Your task to perform on an android device: Add "bose quietcomfort 35" to the cart on walmart.com, then select checkout. Image 0: 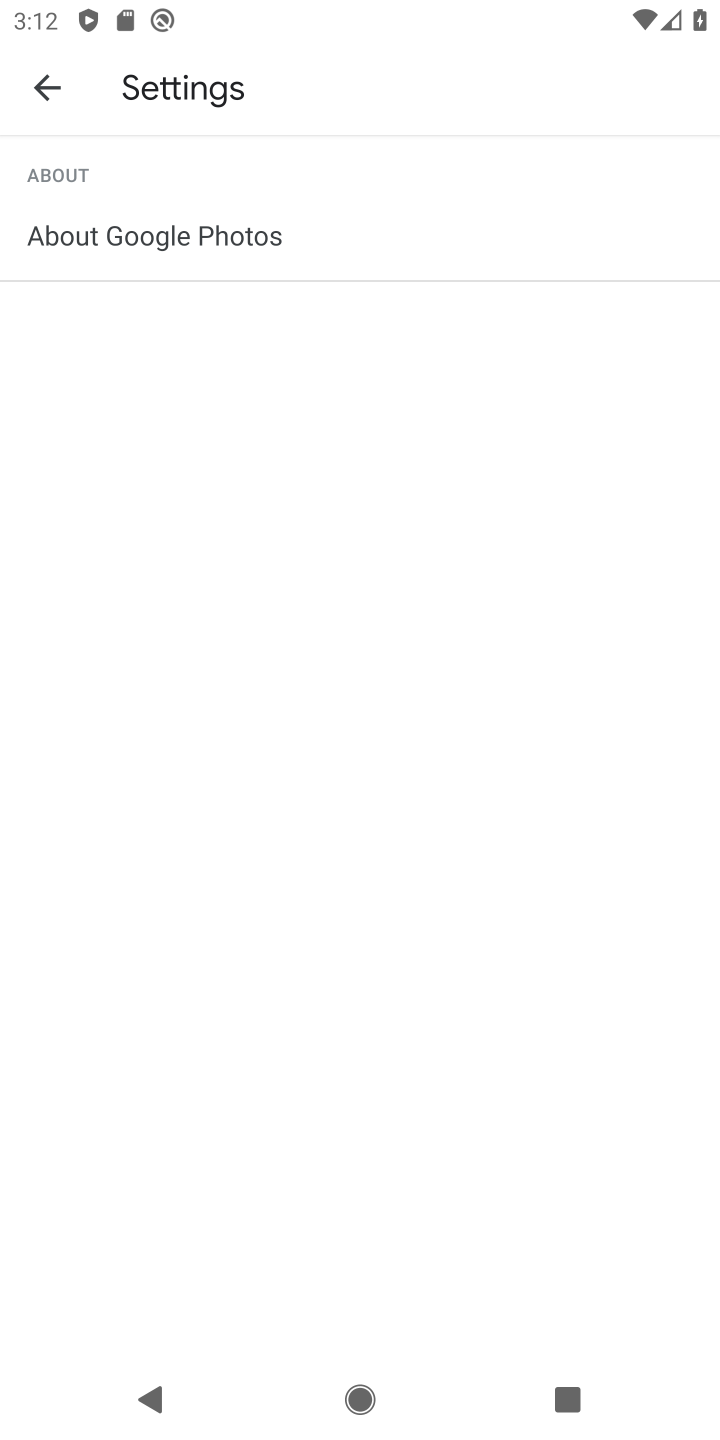
Step 0: press home button
Your task to perform on an android device: Add "bose quietcomfort 35" to the cart on walmart.com, then select checkout. Image 1: 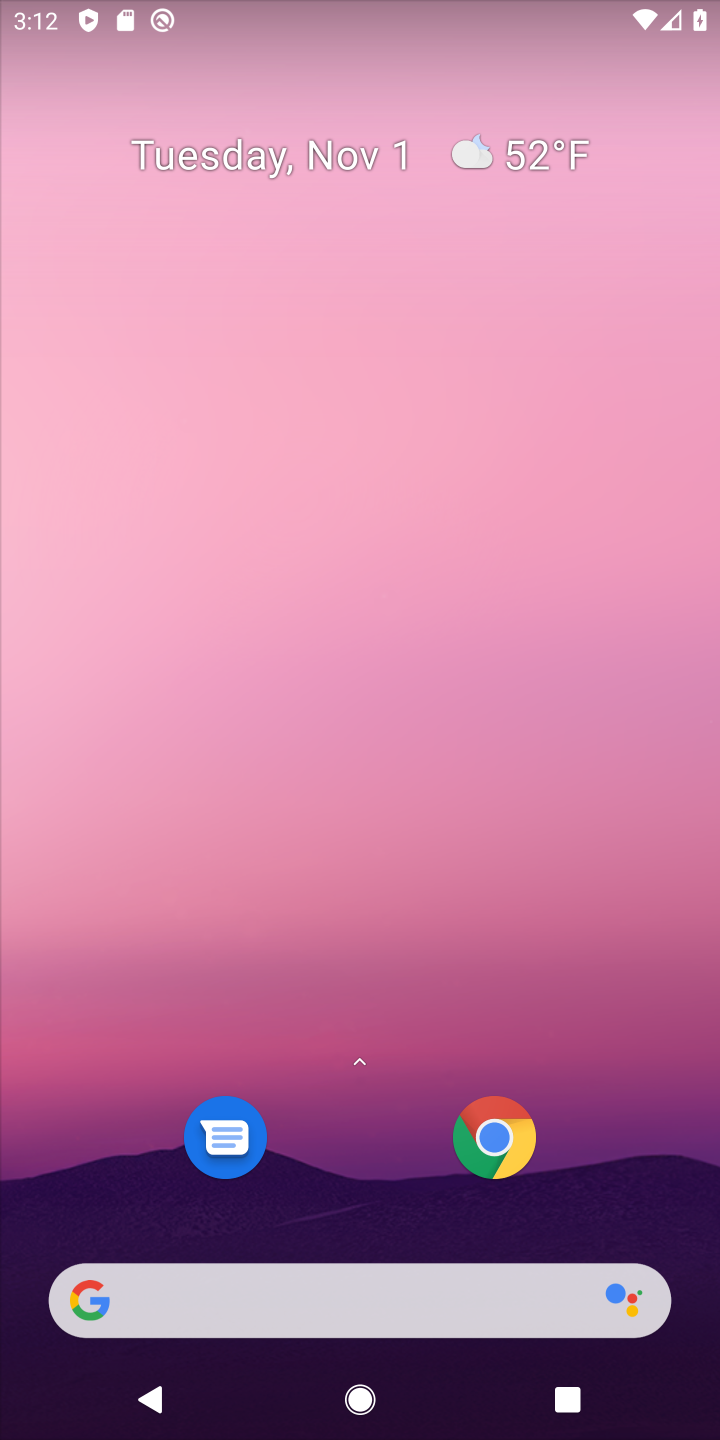
Step 1: click (420, 1296)
Your task to perform on an android device: Add "bose quietcomfort 35" to the cart on walmart.com, then select checkout. Image 2: 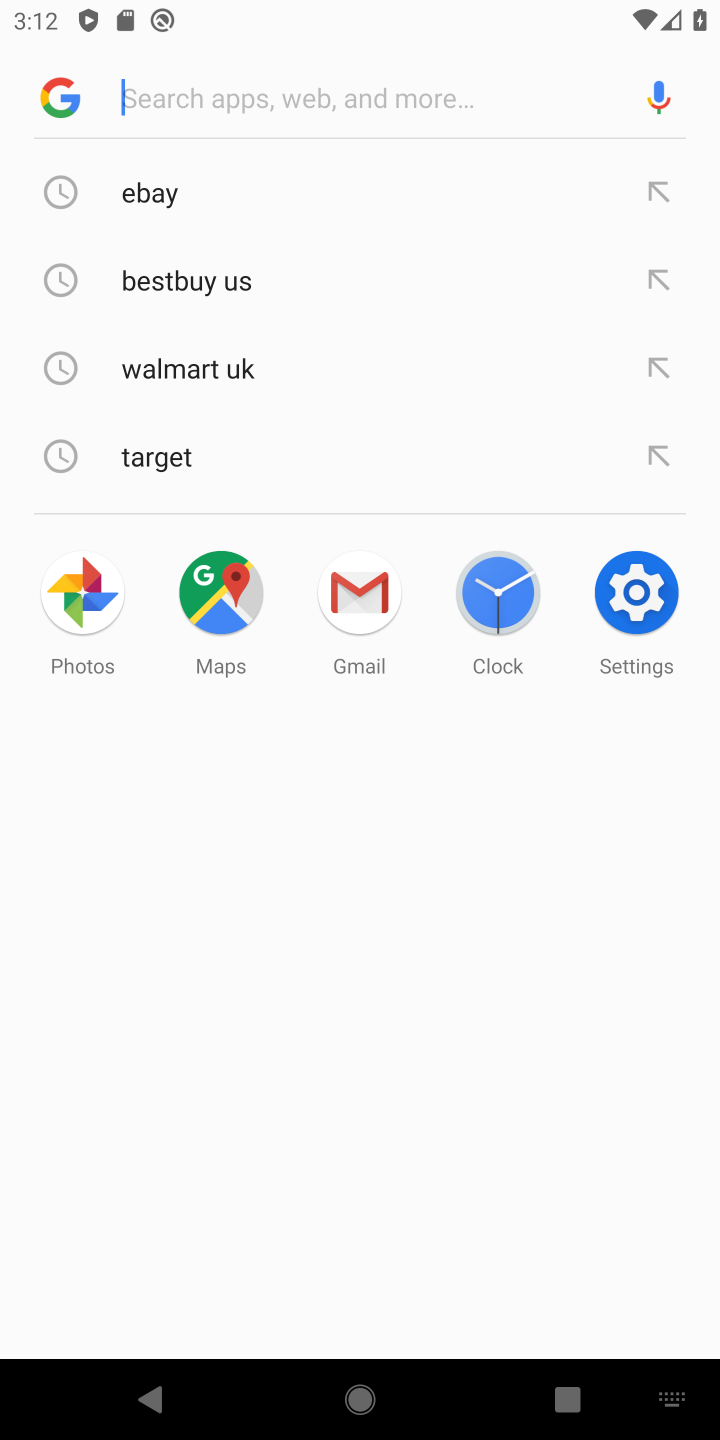
Step 2: type "walmart"
Your task to perform on an android device: Add "bose quietcomfort 35" to the cart on walmart.com, then select checkout. Image 3: 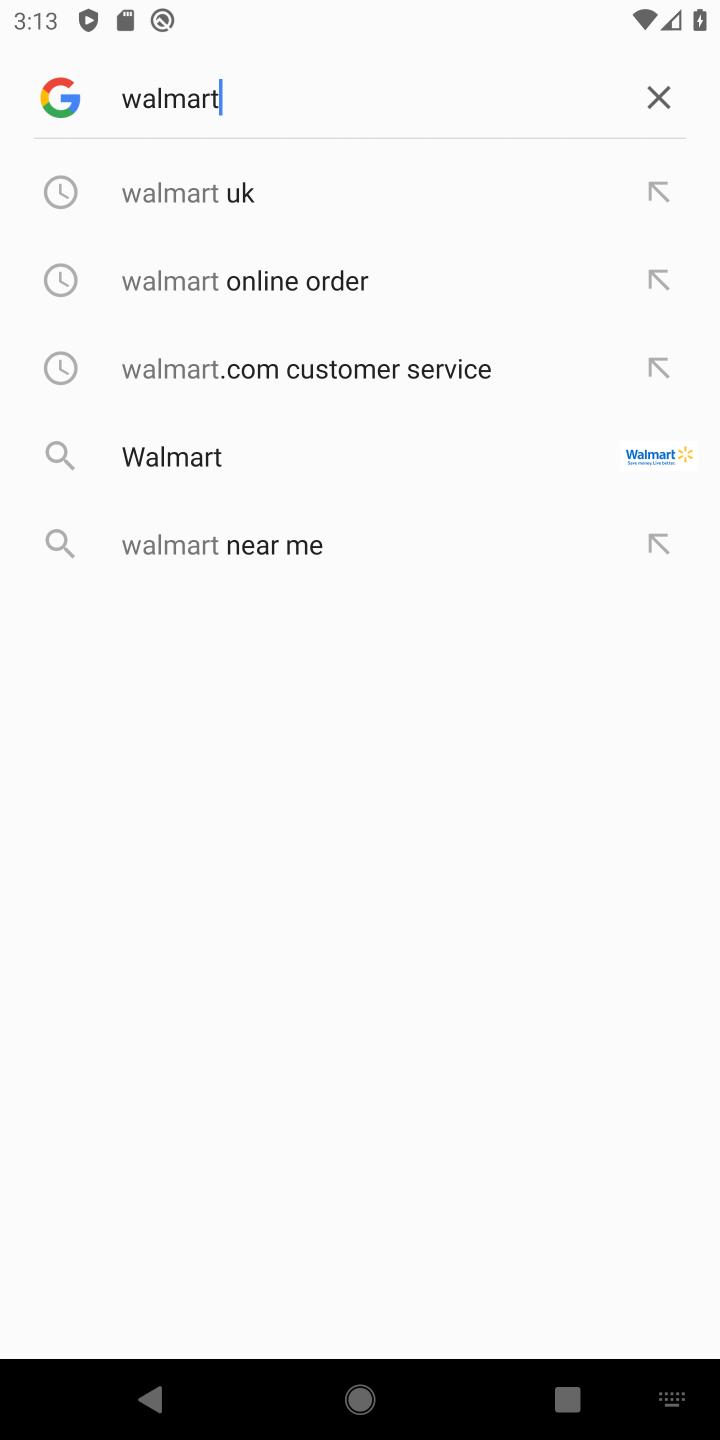
Step 3: click (512, 326)
Your task to perform on an android device: Add "bose quietcomfort 35" to the cart on walmart.com, then select checkout. Image 4: 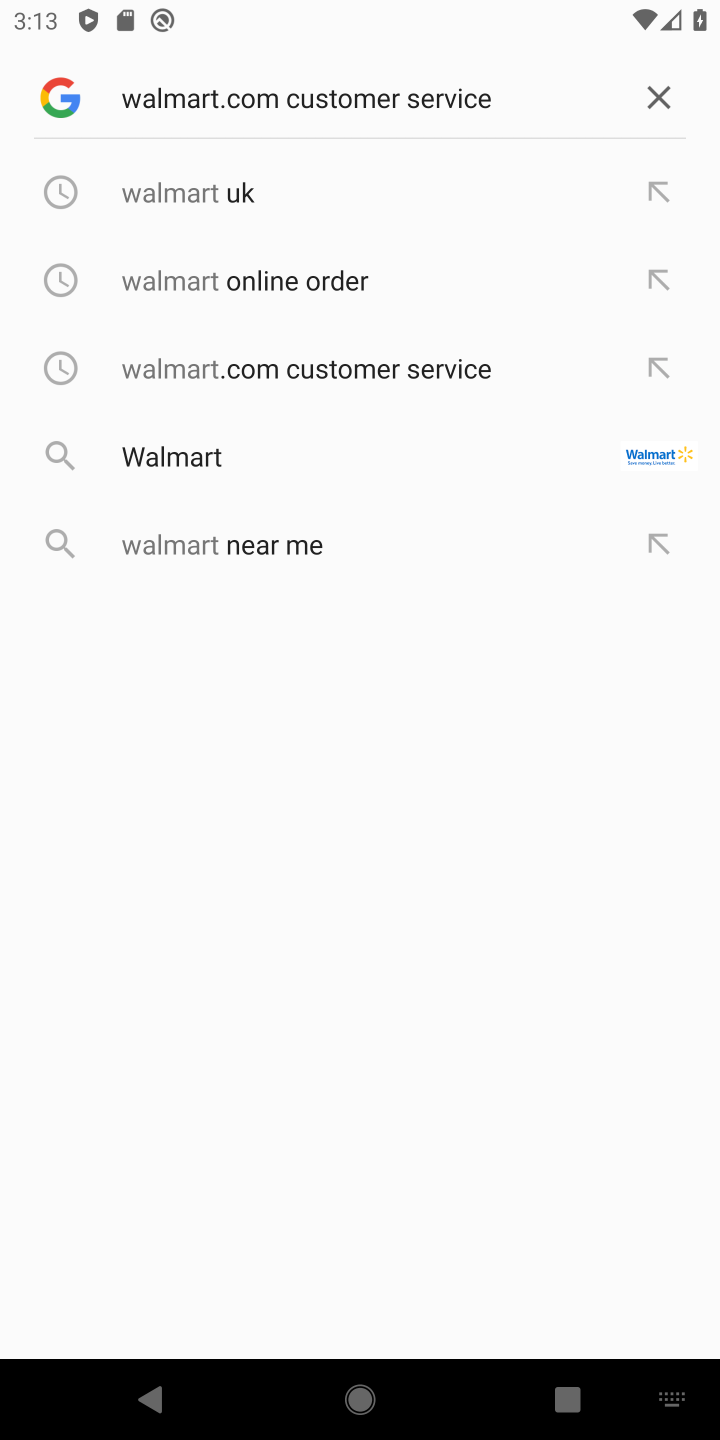
Step 4: click (184, 170)
Your task to perform on an android device: Add "bose quietcomfort 35" to the cart on walmart.com, then select checkout. Image 5: 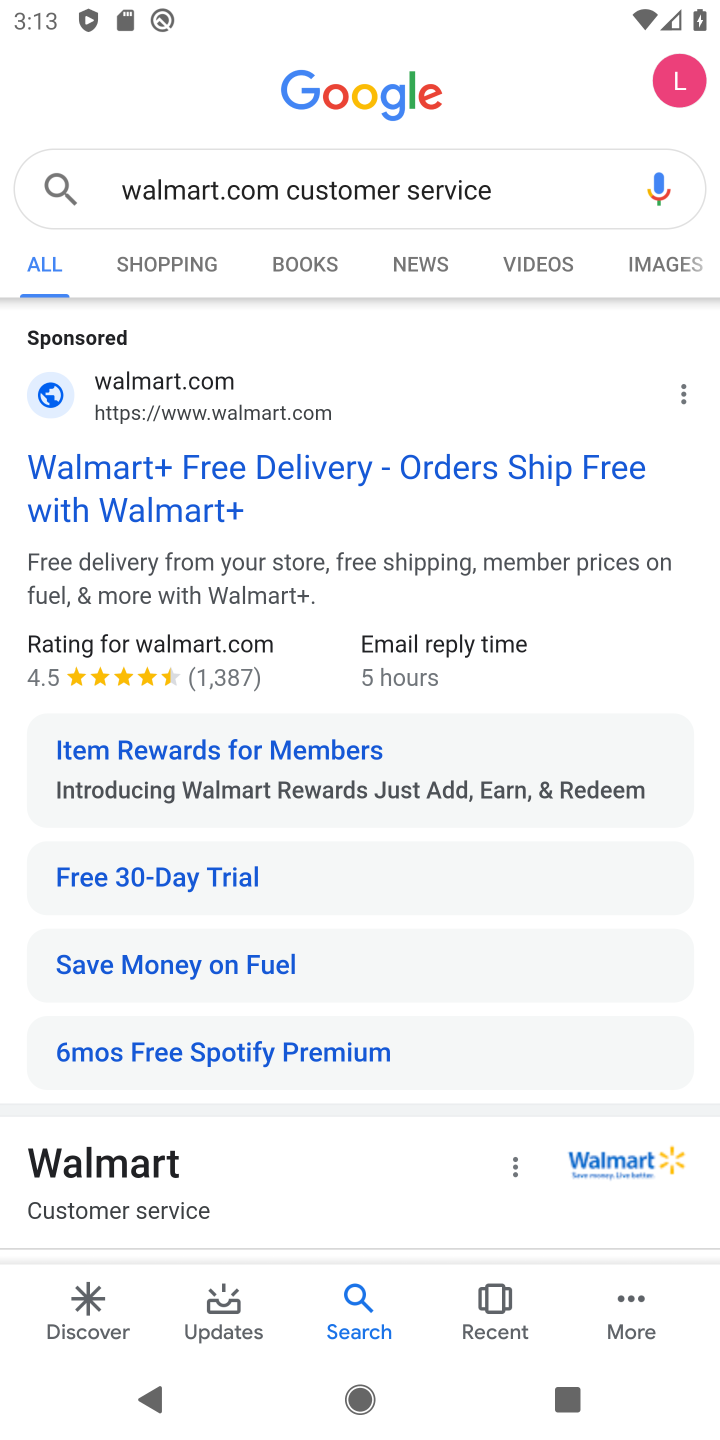
Step 5: click (134, 447)
Your task to perform on an android device: Add "bose quietcomfort 35" to the cart on walmart.com, then select checkout. Image 6: 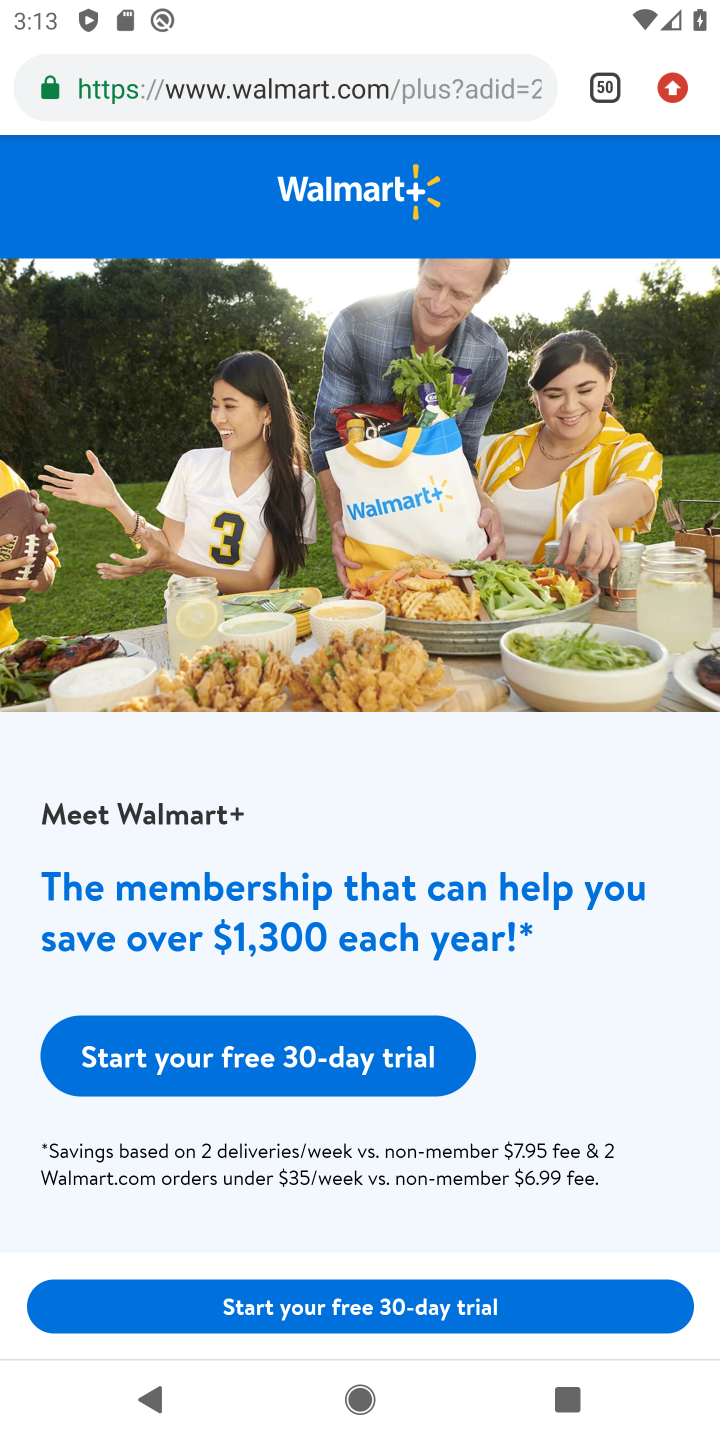
Step 6: task complete